Your task to perform on an android device: Open Yahoo.com Image 0: 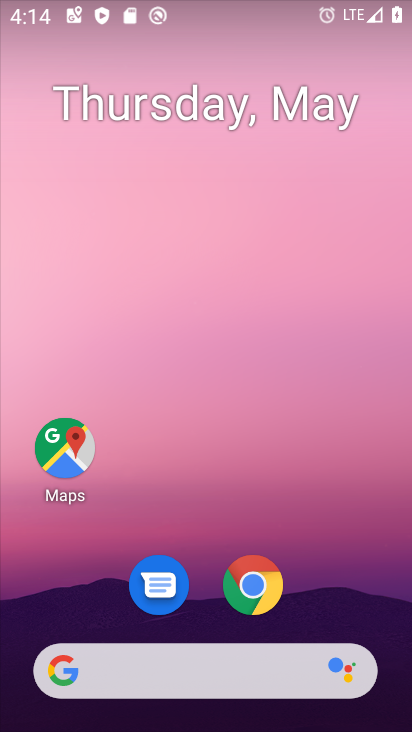
Step 0: click (186, 682)
Your task to perform on an android device: Open Yahoo.com Image 1: 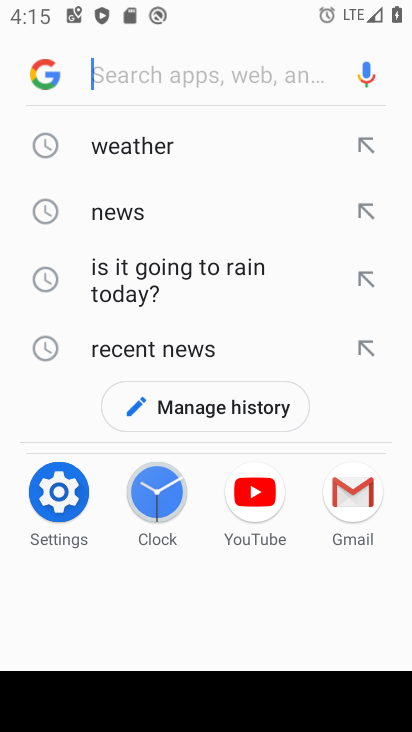
Step 1: type "yahoo.com"
Your task to perform on an android device: Open Yahoo.com Image 2: 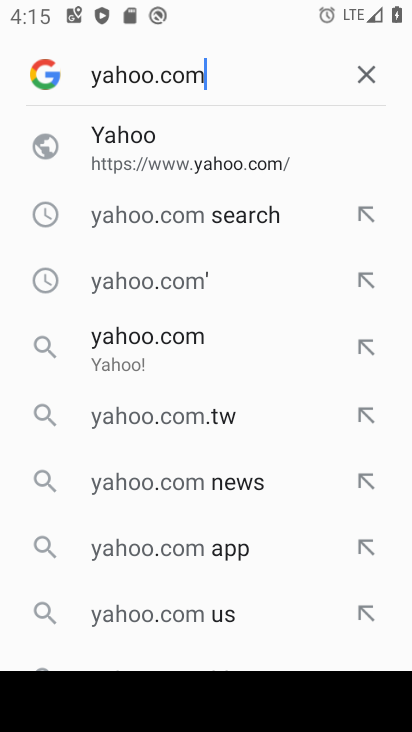
Step 2: click (130, 139)
Your task to perform on an android device: Open Yahoo.com Image 3: 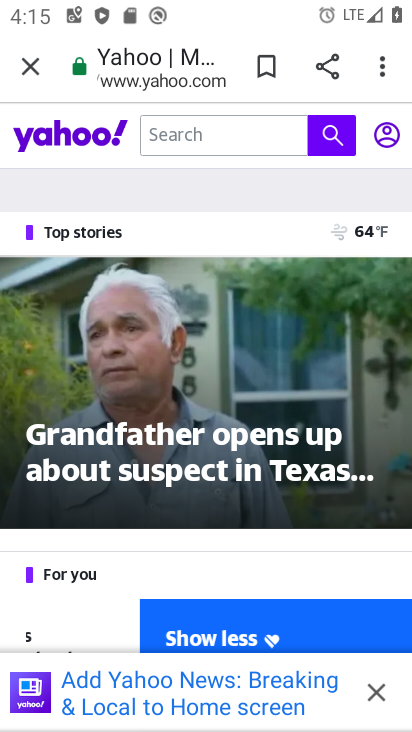
Step 3: task complete